Your task to perform on an android device: visit the assistant section in the google photos Image 0: 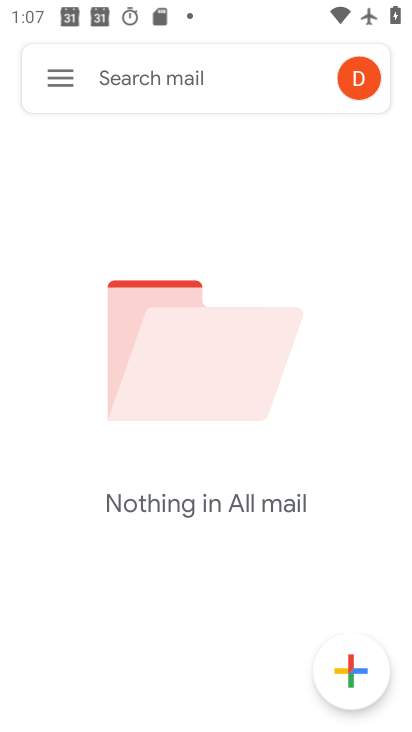
Step 0: press home button
Your task to perform on an android device: visit the assistant section in the google photos Image 1: 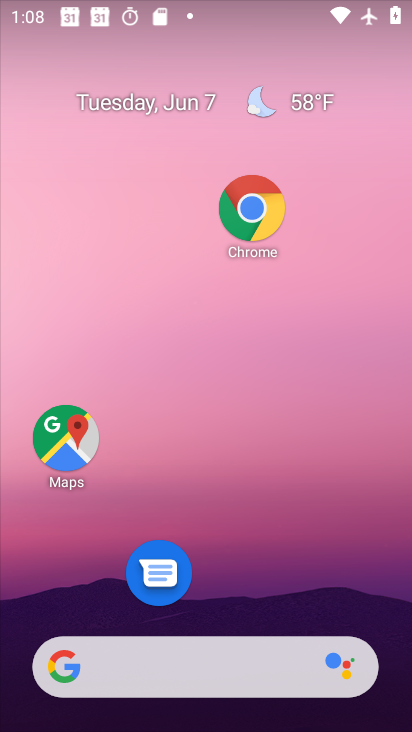
Step 1: drag from (202, 608) to (207, 26)
Your task to perform on an android device: visit the assistant section in the google photos Image 2: 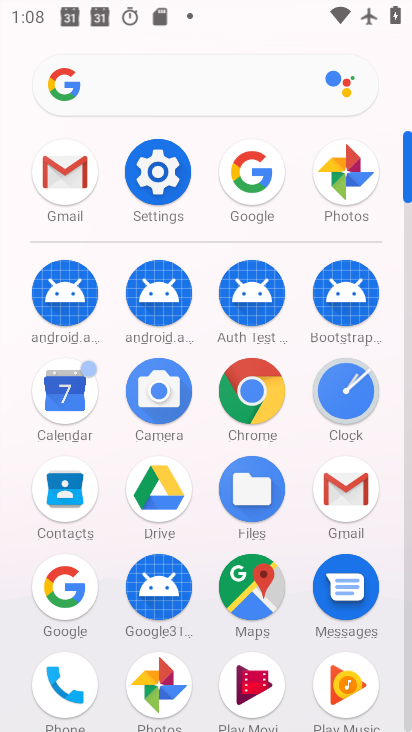
Step 2: click (158, 682)
Your task to perform on an android device: visit the assistant section in the google photos Image 3: 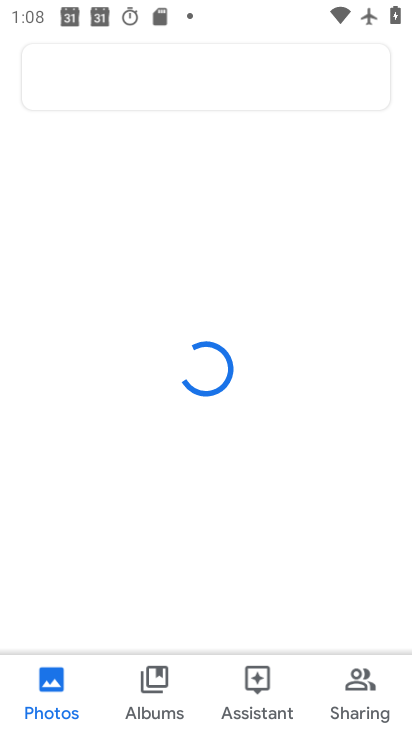
Step 3: click (271, 691)
Your task to perform on an android device: visit the assistant section in the google photos Image 4: 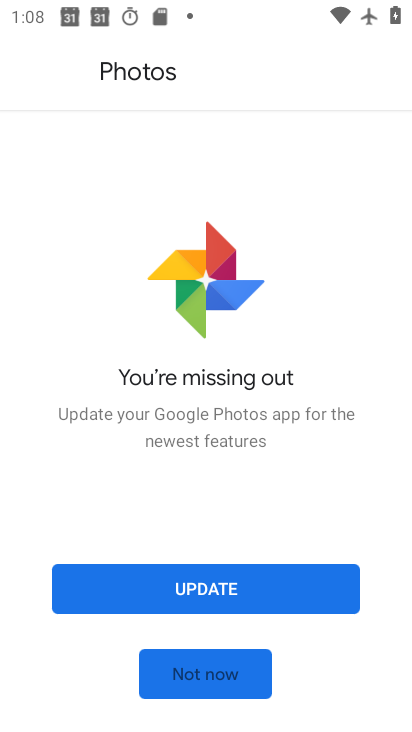
Step 4: click (190, 656)
Your task to perform on an android device: visit the assistant section in the google photos Image 5: 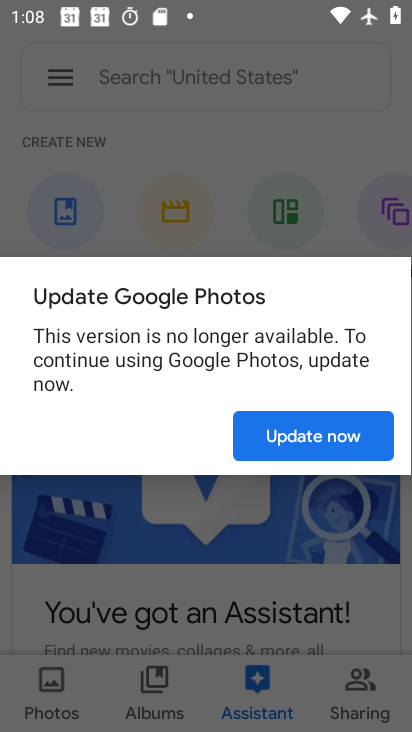
Step 5: click (322, 416)
Your task to perform on an android device: visit the assistant section in the google photos Image 6: 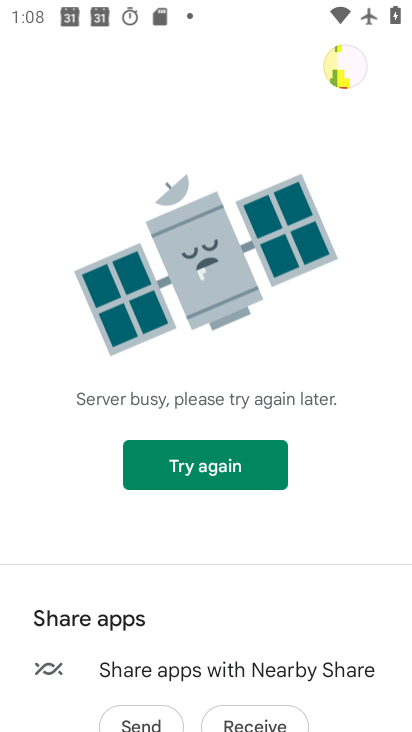
Step 6: task complete